Your task to perform on an android device: change keyboard looks Image 0: 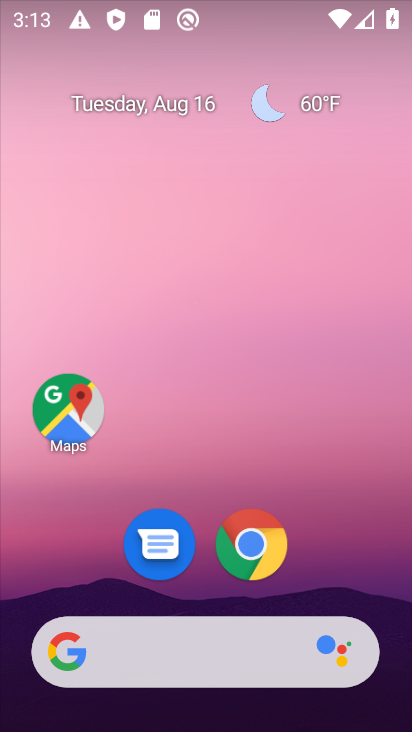
Step 0: drag from (384, 573) to (179, 22)
Your task to perform on an android device: change keyboard looks Image 1: 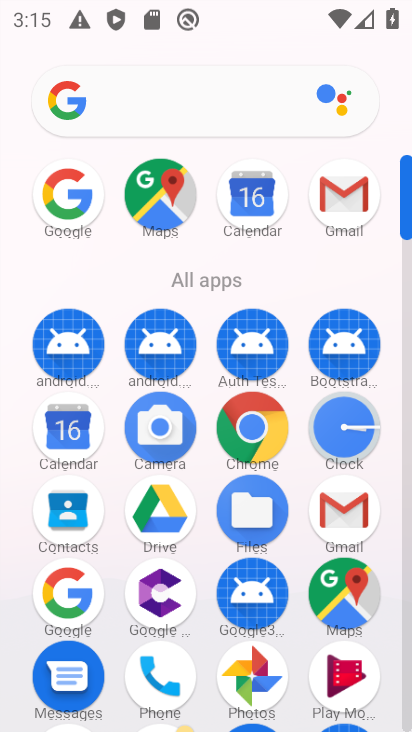
Step 1: drag from (230, 651) to (156, 65)
Your task to perform on an android device: change keyboard looks Image 2: 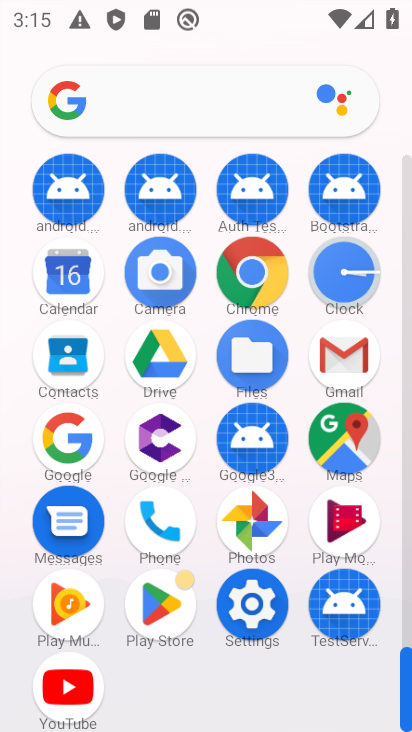
Step 2: click (242, 617)
Your task to perform on an android device: change keyboard looks Image 3: 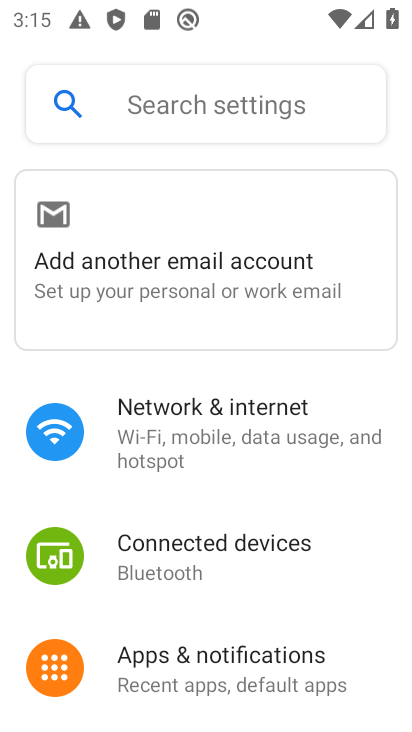
Step 3: drag from (254, 657) to (154, 35)
Your task to perform on an android device: change keyboard looks Image 4: 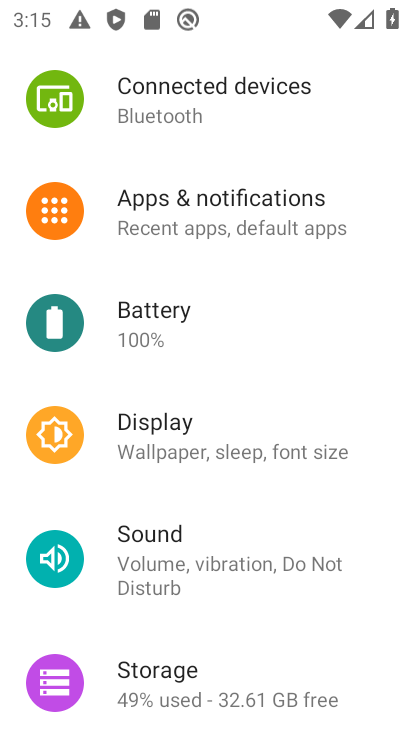
Step 4: drag from (182, 619) to (145, 15)
Your task to perform on an android device: change keyboard looks Image 5: 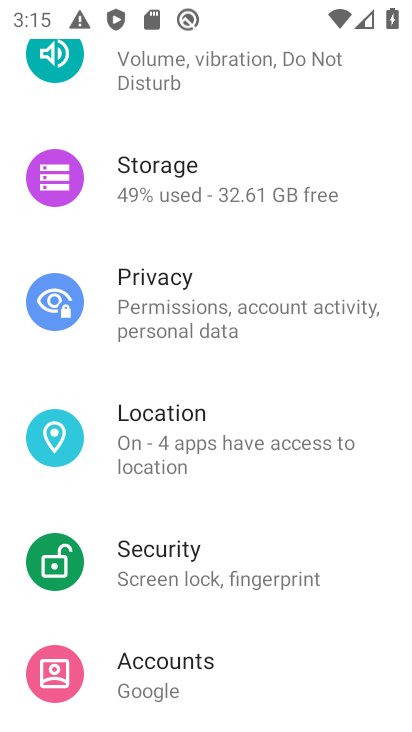
Step 5: drag from (206, 648) to (198, 7)
Your task to perform on an android device: change keyboard looks Image 6: 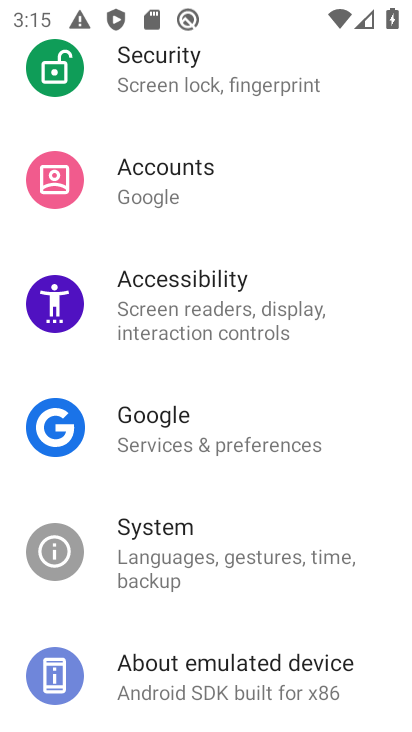
Step 6: click (195, 602)
Your task to perform on an android device: change keyboard looks Image 7: 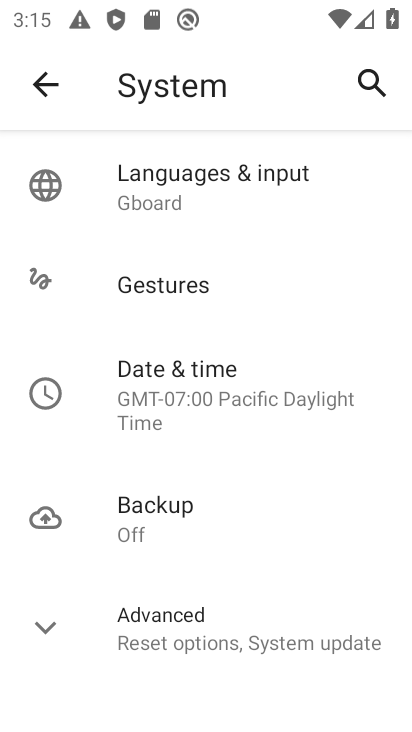
Step 7: click (169, 205)
Your task to perform on an android device: change keyboard looks Image 8: 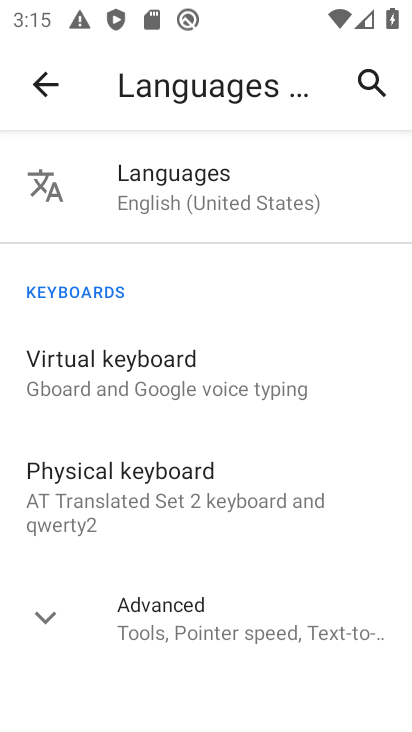
Step 8: click (158, 355)
Your task to perform on an android device: change keyboard looks Image 9: 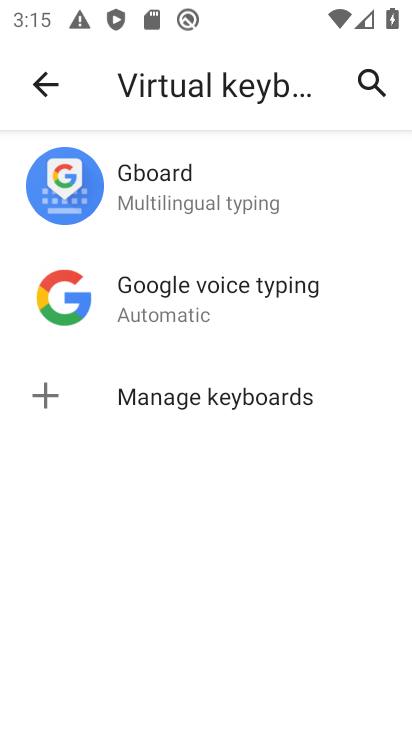
Step 9: click (153, 209)
Your task to perform on an android device: change keyboard looks Image 10: 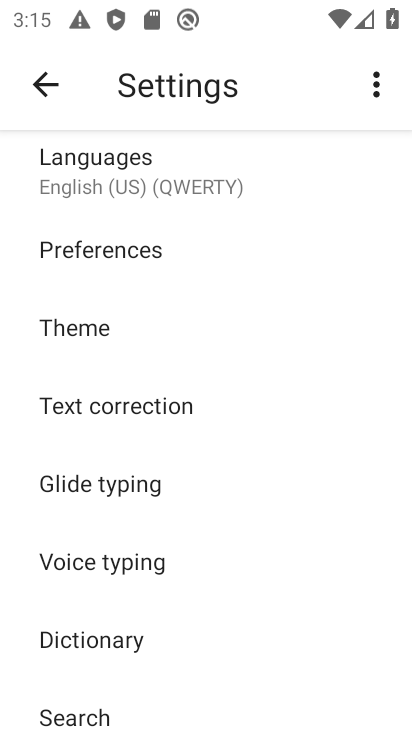
Step 10: click (58, 341)
Your task to perform on an android device: change keyboard looks Image 11: 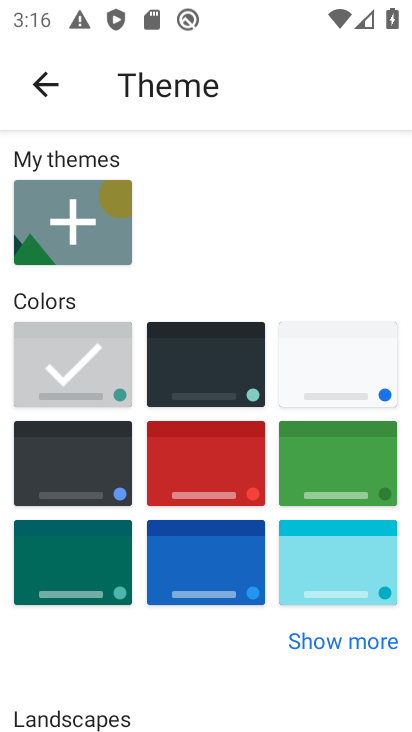
Step 11: click (204, 353)
Your task to perform on an android device: change keyboard looks Image 12: 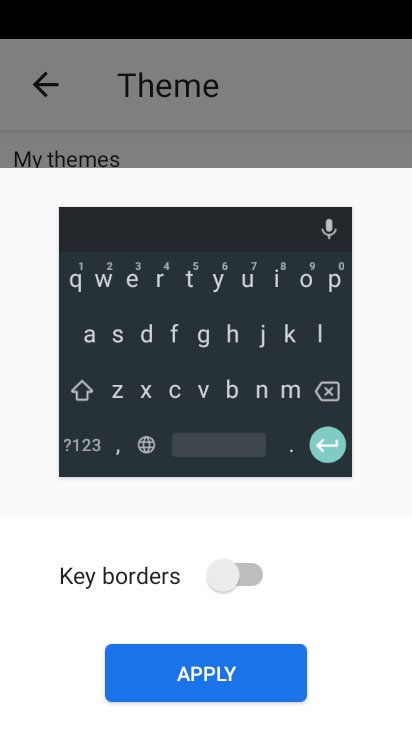
Step 12: click (207, 688)
Your task to perform on an android device: change keyboard looks Image 13: 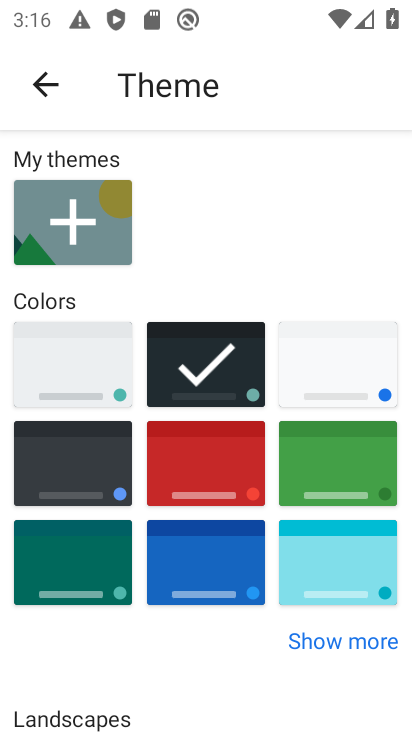
Step 13: task complete